Your task to perform on an android device: toggle translation in the chrome app Image 0: 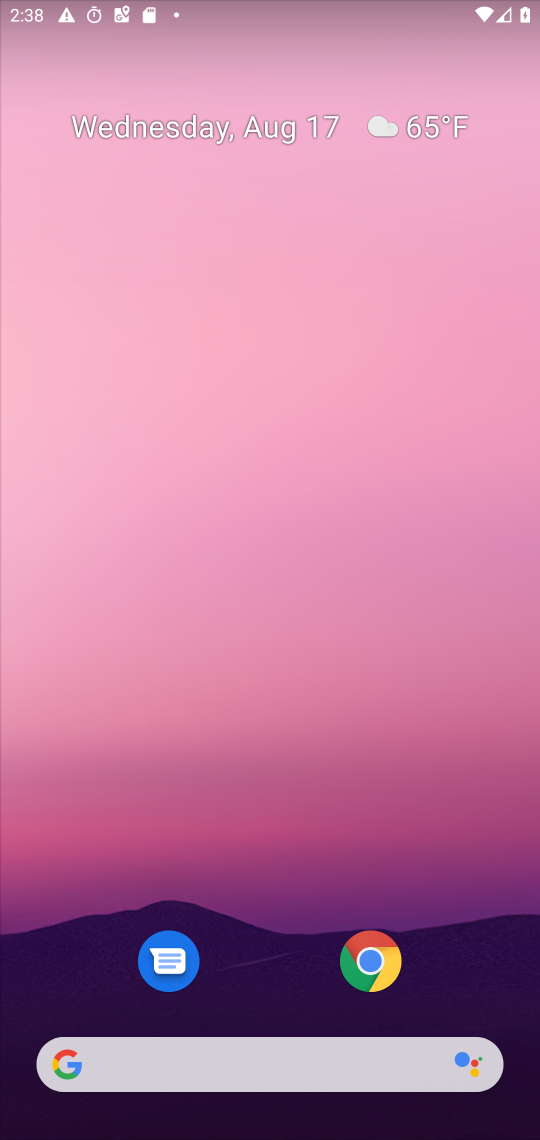
Step 0: drag from (448, 822) to (453, 7)
Your task to perform on an android device: toggle translation in the chrome app Image 1: 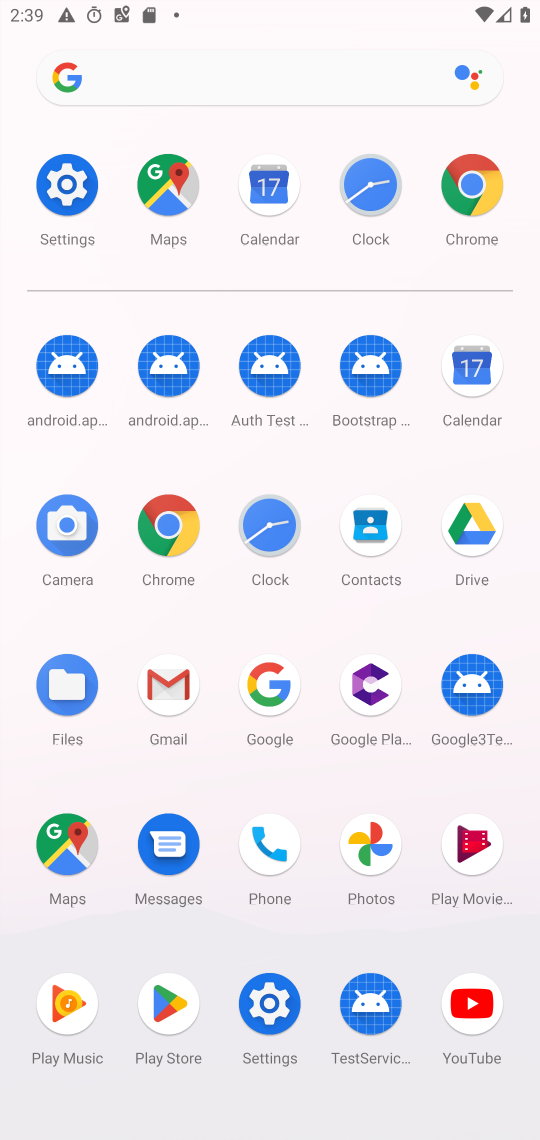
Step 1: click (183, 565)
Your task to perform on an android device: toggle translation in the chrome app Image 2: 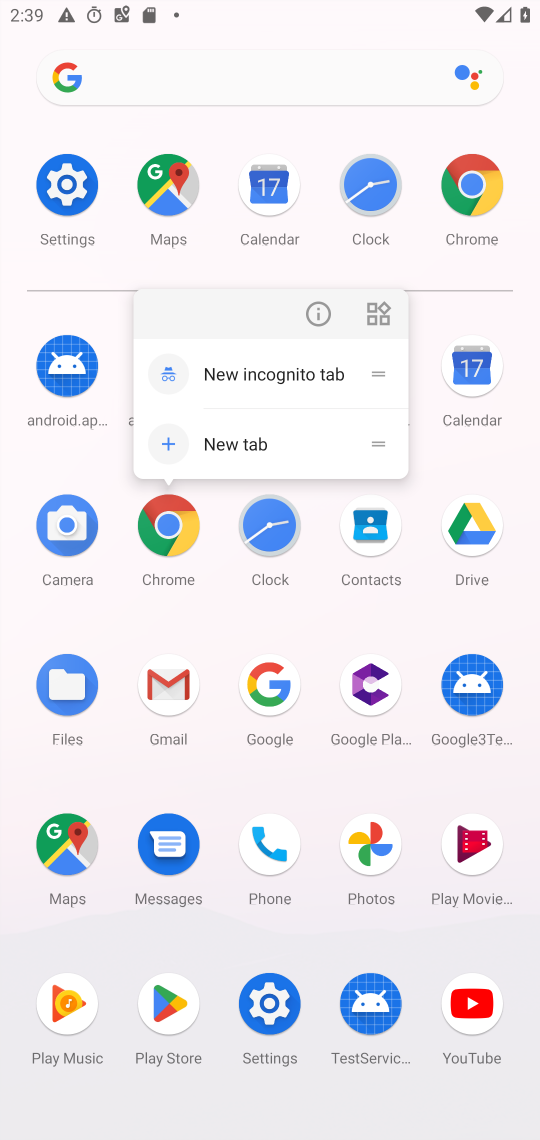
Step 2: click (150, 533)
Your task to perform on an android device: toggle translation in the chrome app Image 3: 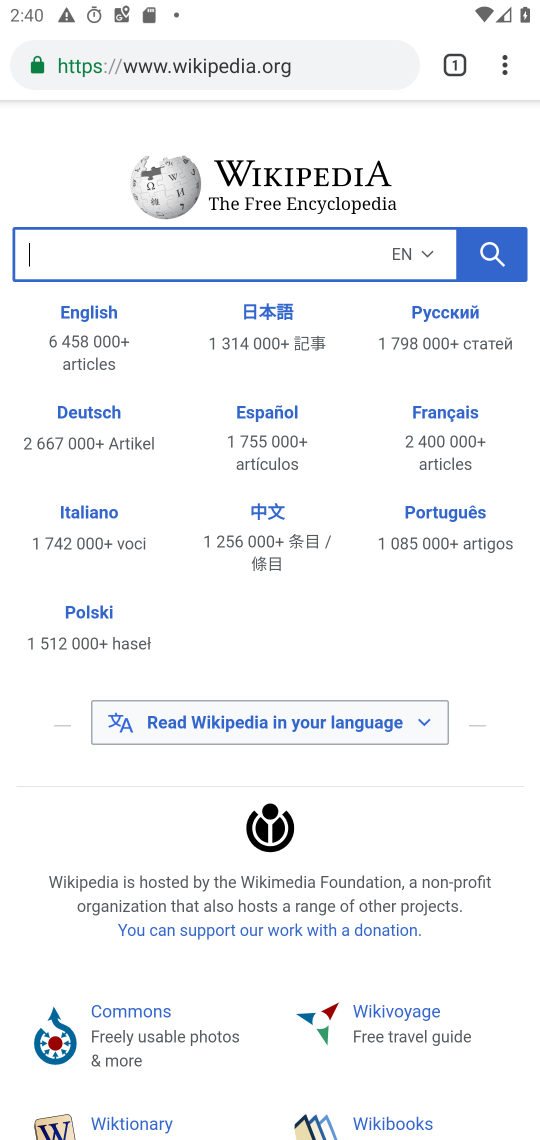
Step 3: click (501, 68)
Your task to perform on an android device: toggle translation in the chrome app Image 4: 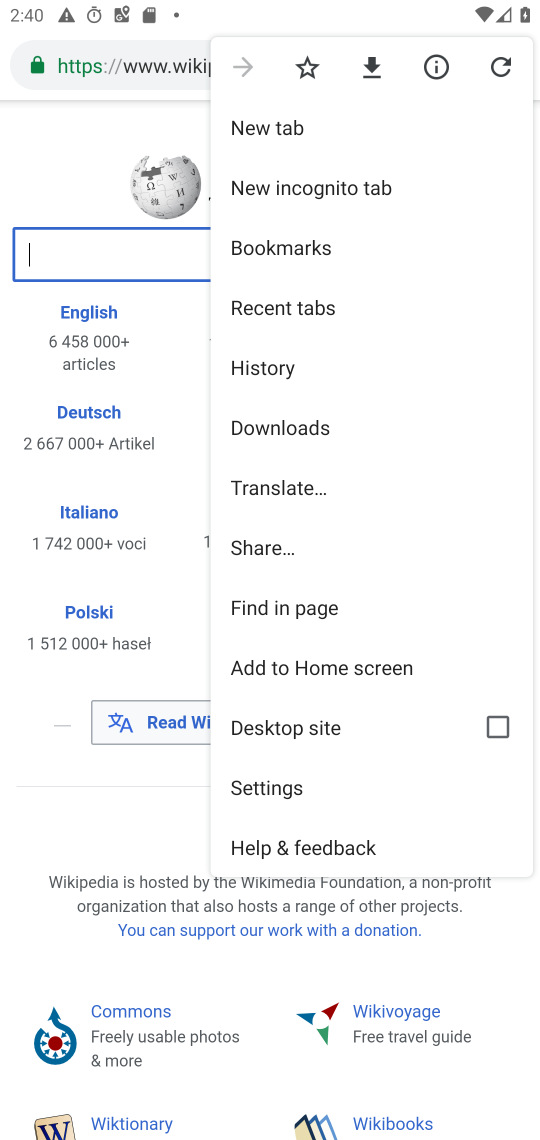
Step 4: click (312, 502)
Your task to perform on an android device: toggle translation in the chrome app Image 5: 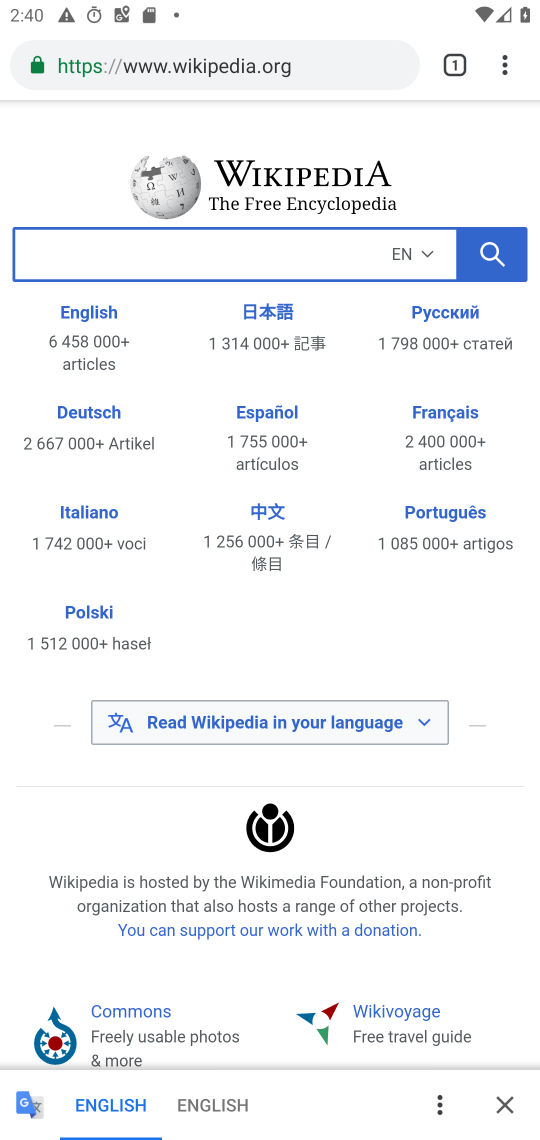
Step 5: click (434, 1092)
Your task to perform on an android device: toggle translation in the chrome app Image 6: 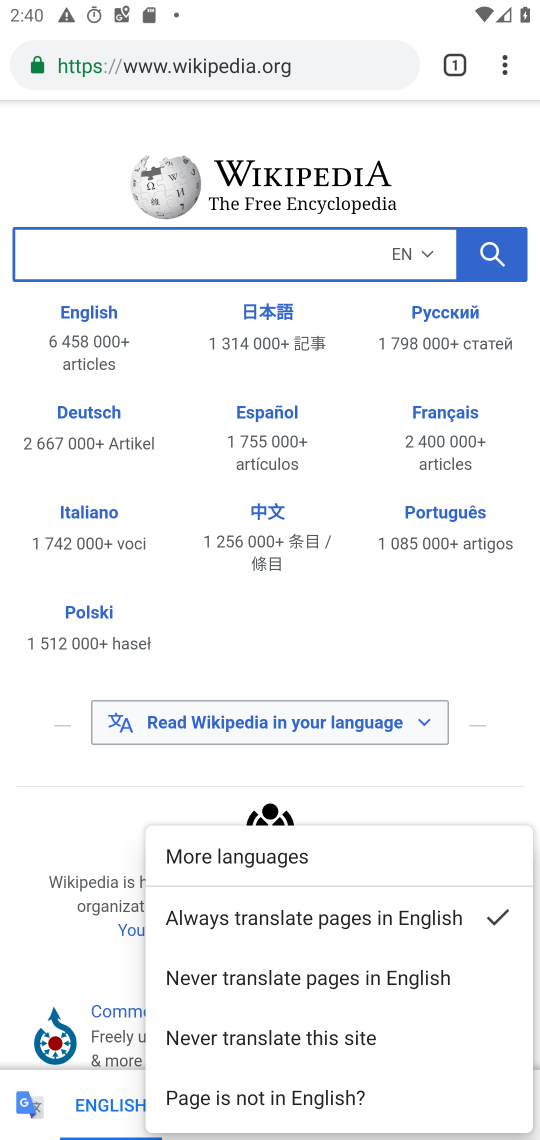
Step 6: click (337, 1036)
Your task to perform on an android device: toggle translation in the chrome app Image 7: 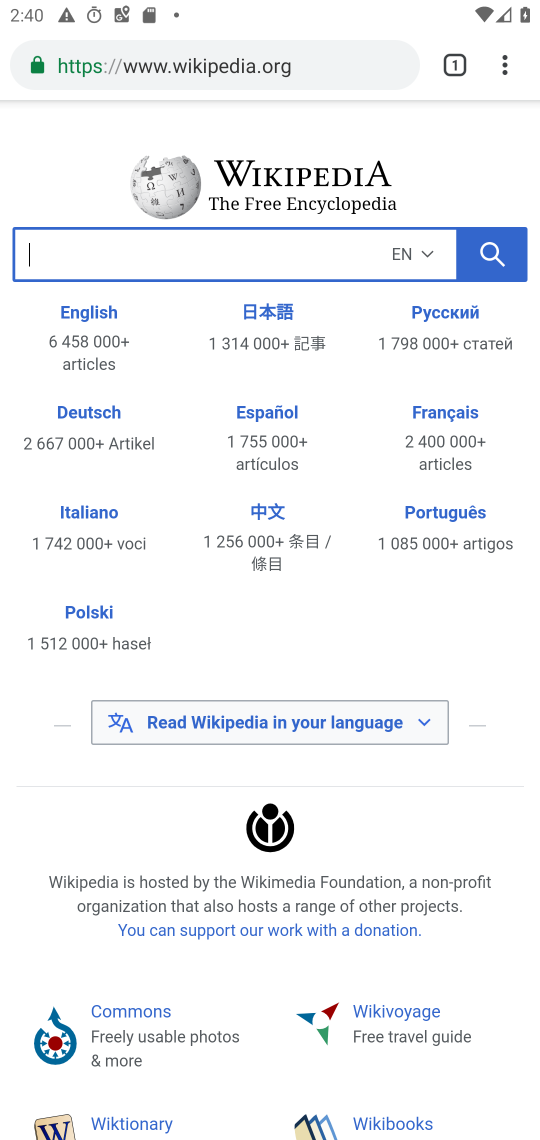
Step 7: task complete